Your task to perform on an android device: Open settings Image 0: 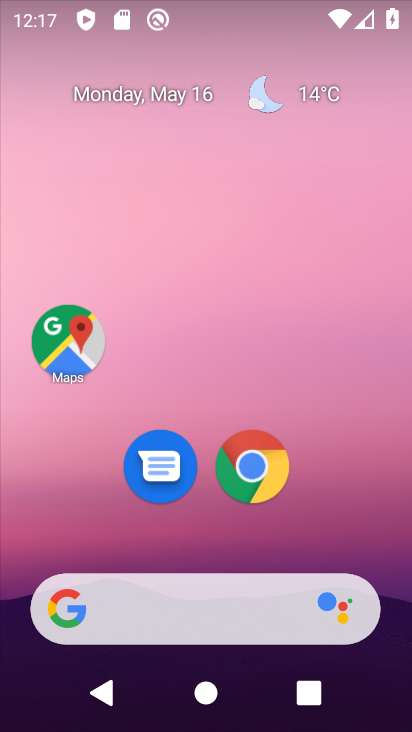
Step 0: drag from (80, 499) to (145, 15)
Your task to perform on an android device: Open settings Image 1: 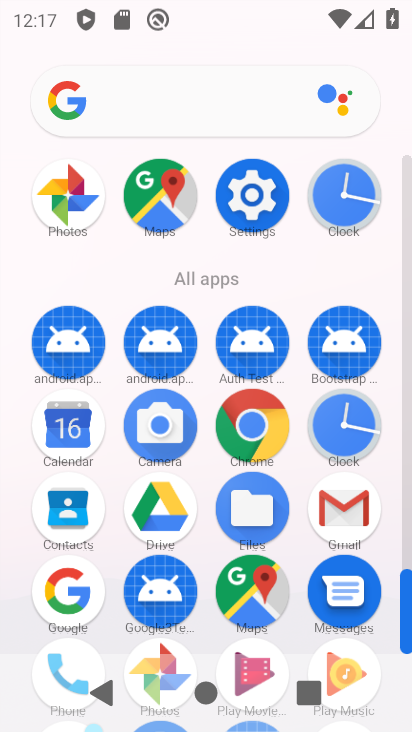
Step 1: drag from (158, 554) to (256, 231)
Your task to perform on an android device: Open settings Image 2: 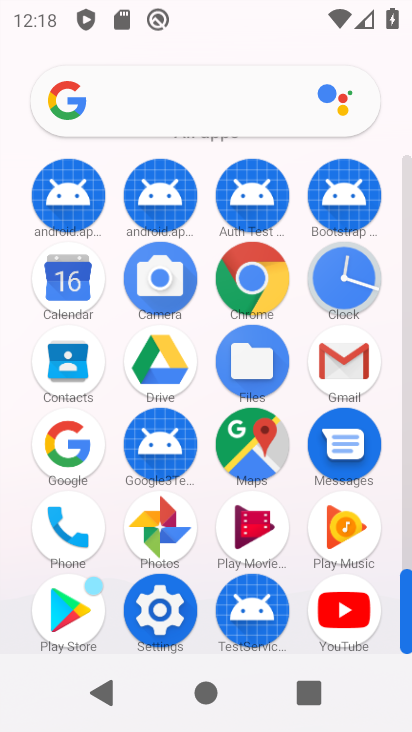
Step 2: click (147, 608)
Your task to perform on an android device: Open settings Image 3: 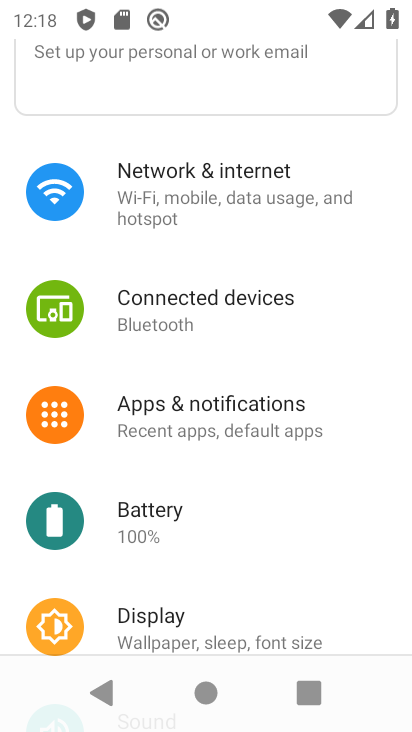
Step 3: task complete